Your task to perform on an android device: remove spam from my inbox in the gmail app Image 0: 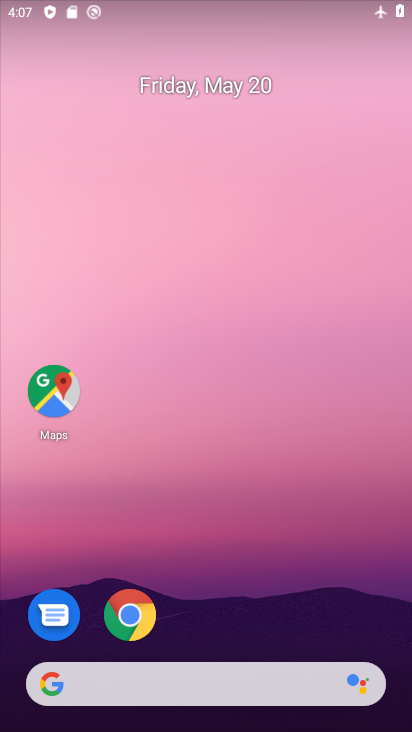
Step 0: drag from (215, 656) to (221, 140)
Your task to perform on an android device: remove spam from my inbox in the gmail app Image 1: 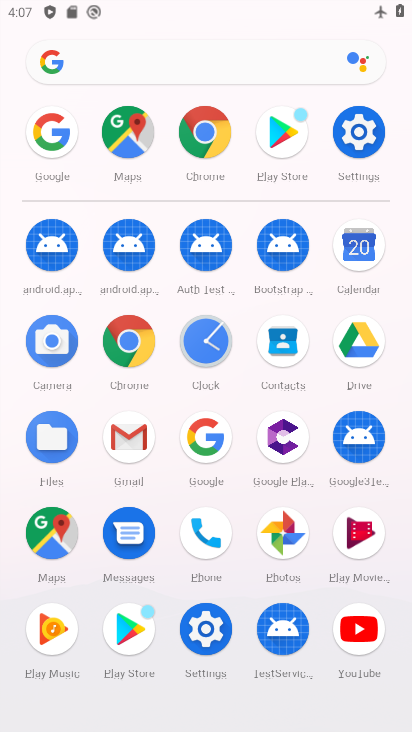
Step 1: click (128, 456)
Your task to perform on an android device: remove spam from my inbox in the gmail app Image 2: 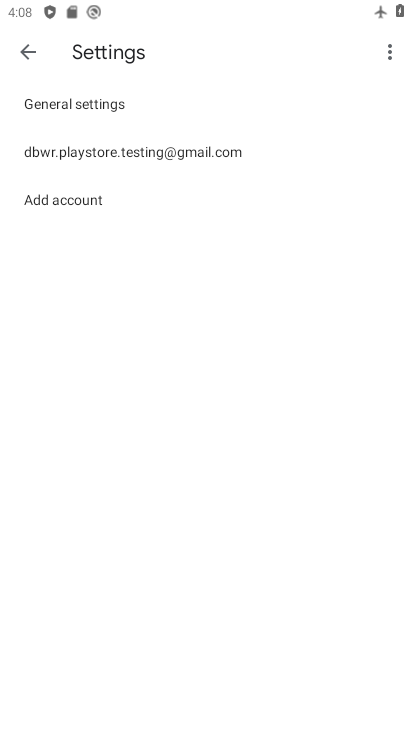
Step 2: task complete